Your task to perform on an android device: turn off location history Image 0: 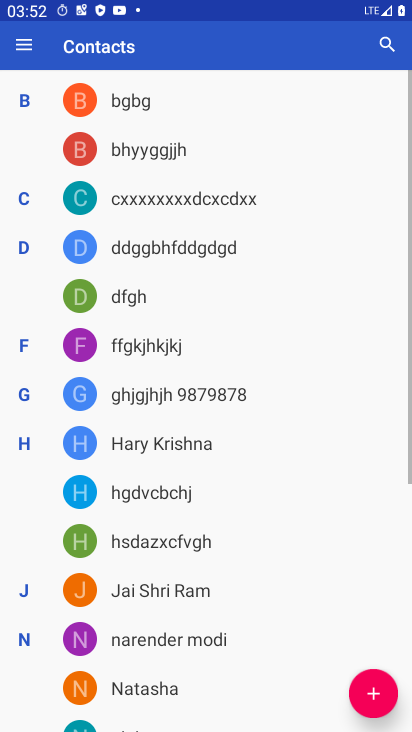
Step 0: drag from (169, 605) to (77, 180)
Your task to perform on an android device: turn off location history Image 1: 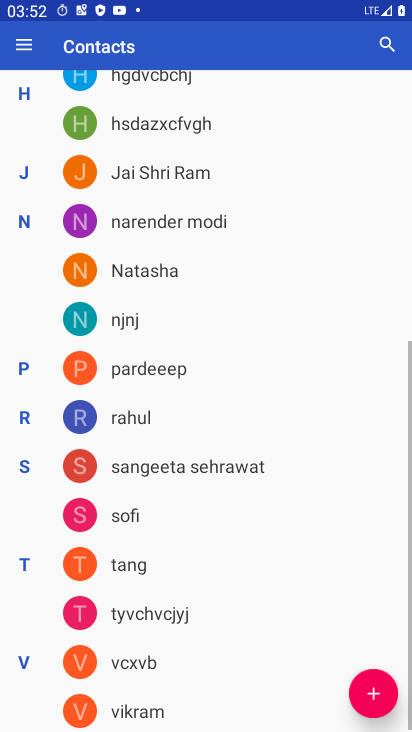
Step 1: press back button
Your task to perform on an android device: turn off location history Image 2: 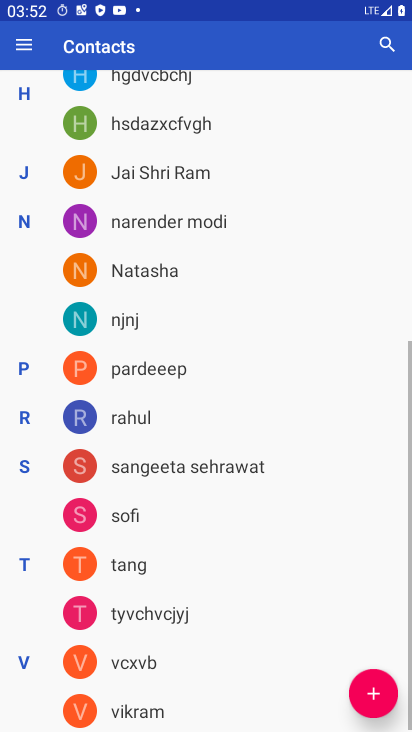
Step 2: press back button
Your task to perform on an android device: turn off location history Image 3: 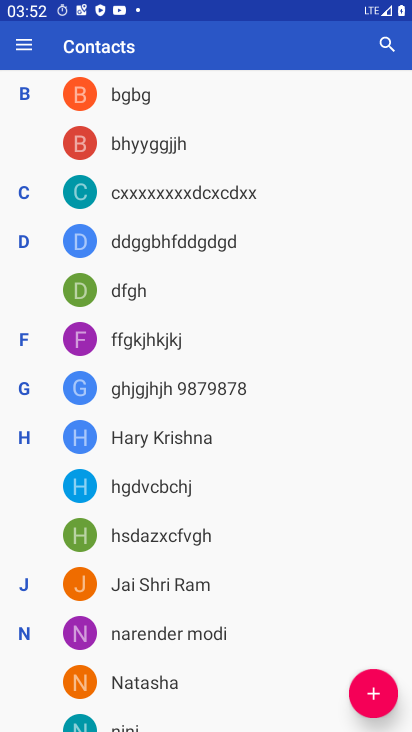
Step 3: press back button
Your task to perform on an android device: turn off location history Image 4: 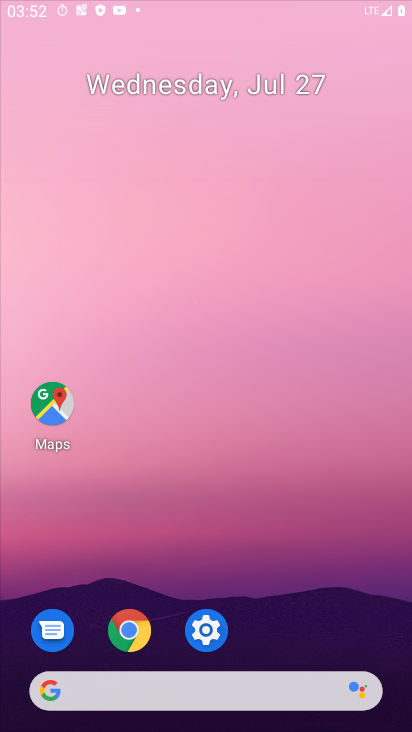
Step 4: press home button
Your task to perform on an android device: turn off location history Image 5: 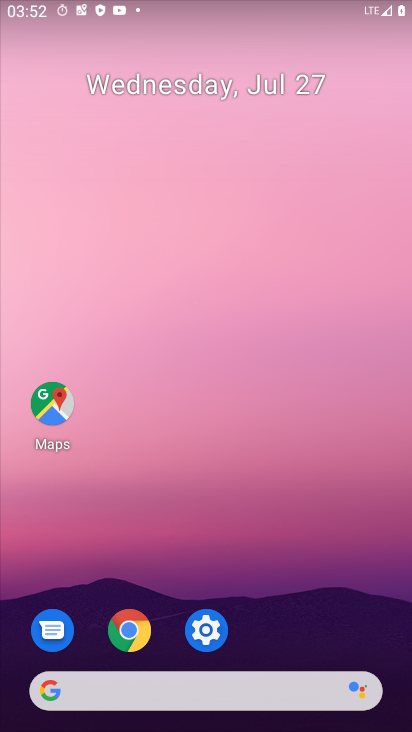
Step 5: drag from (265, 440) to (218, 147)
Your task to perform on an android device: turn off location history Image 6: 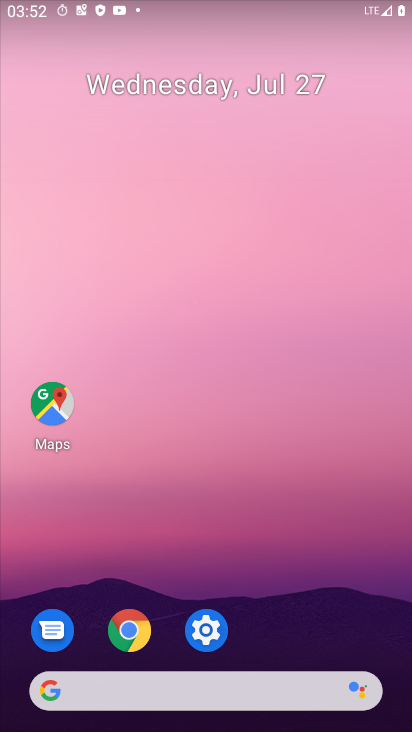
Step 6: drag from (236, 648) to (187, 125)
Your task to perform on an android device: turn off location history Image 7: 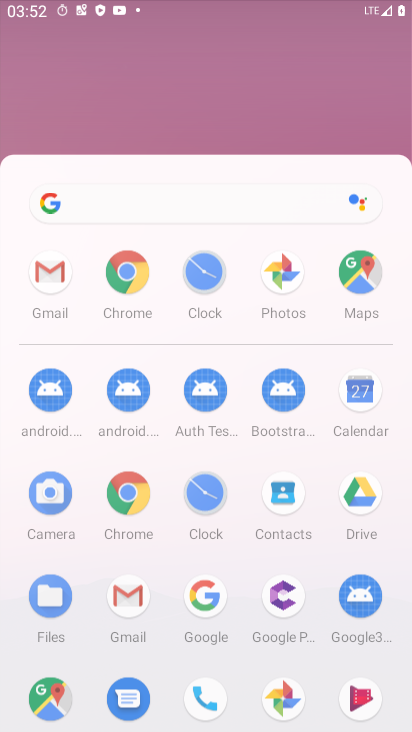
Step 7: drag from (254, 624) to (155, 152)
Your task to perform on an android device: turn off location history Image 8: 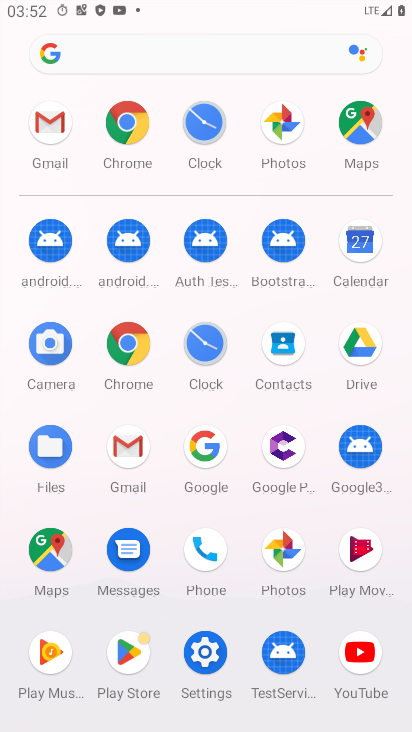
Step 8: click (204, 650)
Your task to perform on an android device: turn off location history Image 9: 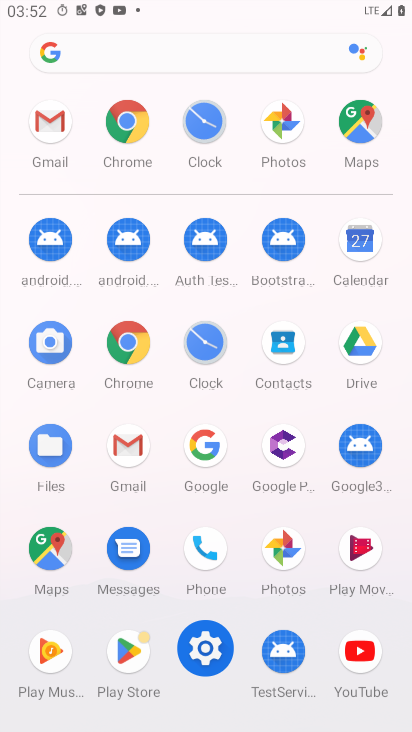
Step 9: click (200, 655)
Your task to perform on an android device: turn off location history Image 10: 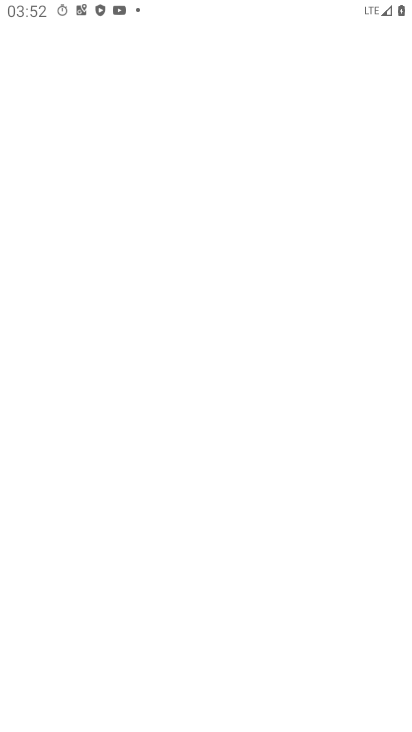
Step 10: click (219, 667)
Your task to perform on an android device: turn off location history Image 11: 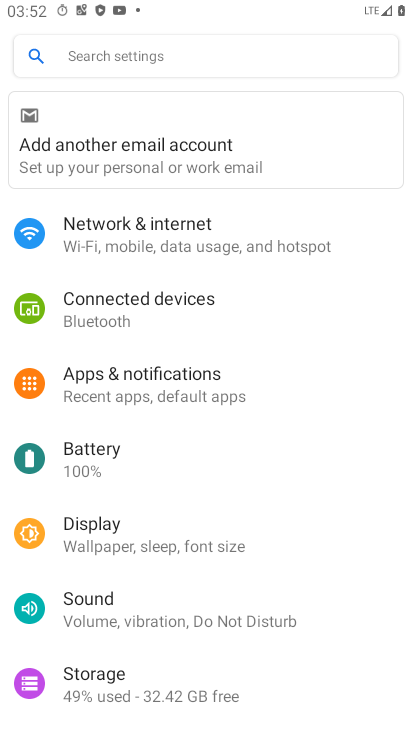
Step 11: drag from (118, 581) to (79, 175)
Your task to perform on an android device: turn off location history Image 12: 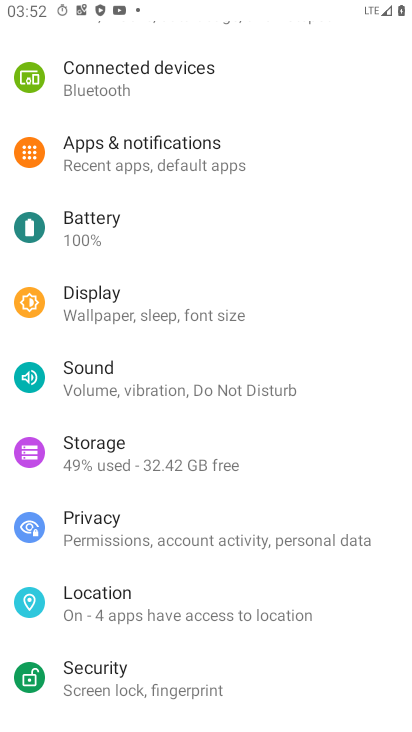
Step 12: drag from (121, 510) to (129, 148)
Your task to perform on an android device: turn off location history Image 13: 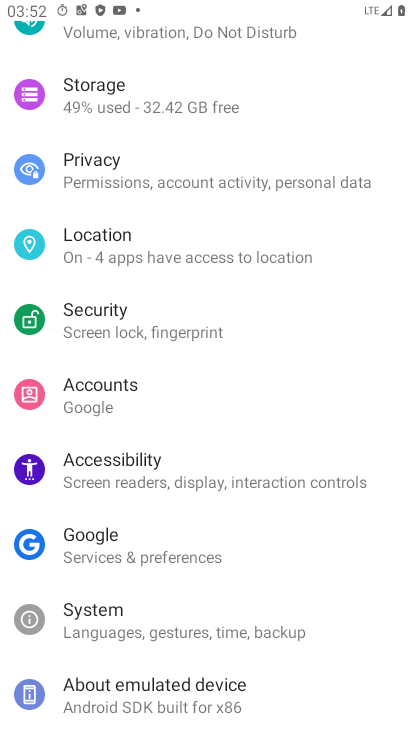
Step 13: click (95, 245)
Your task to perform on an android device: turn off location history Image 14: 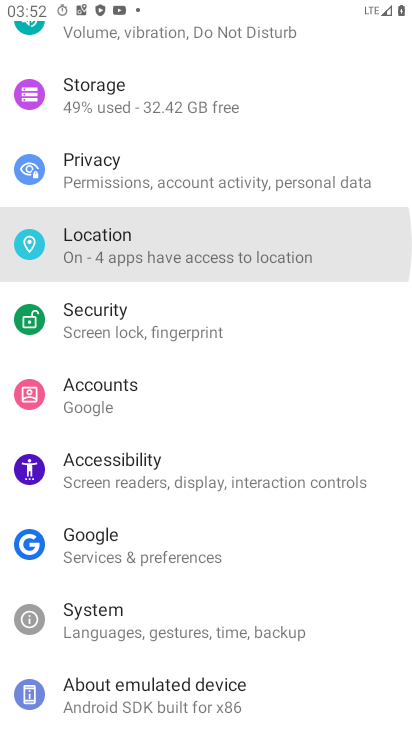
Step 14: click (95, 245)
Your task to perform on an android device: turn off location history Image 15: 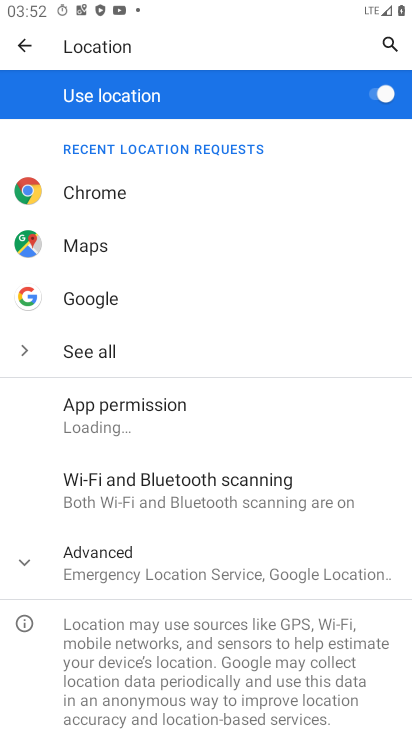
Step 15: click (120, 561)
Your task to perform on an android device: turn off location history Image 16: 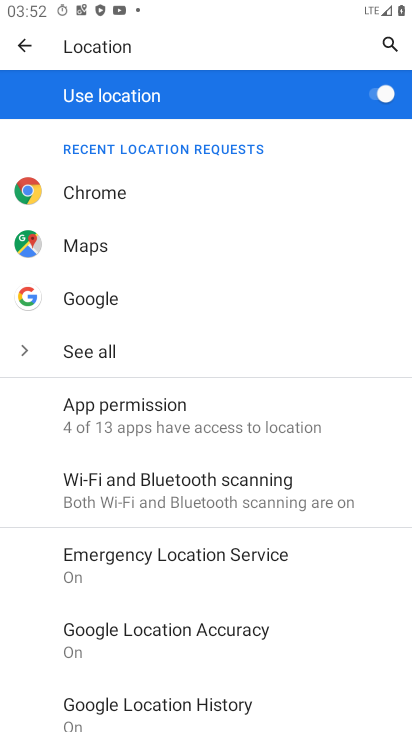
Step 16: click (178, 696)
Your task to perform on an android device: turn off location history Image 17: 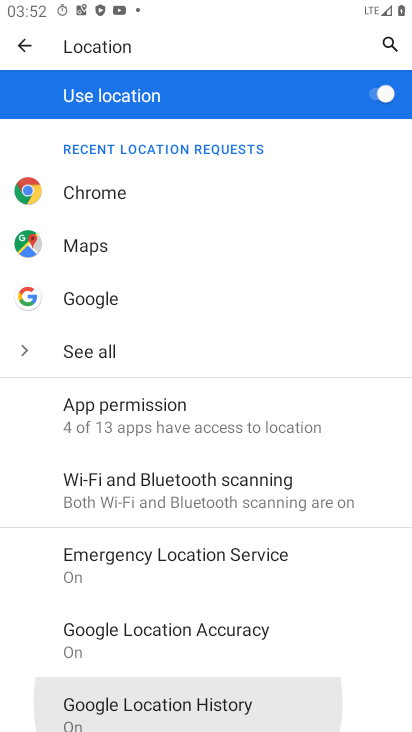
Step 17: click (178, 696)
Your task to perform on an android device: turn off location history Image 18: 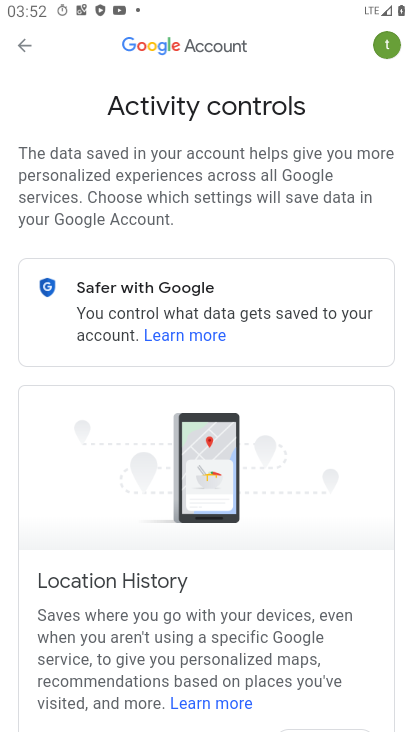
Step 18: drag from (263, 563) to (176, 204)
Your task to perform on an android device: turn off location history Image 19: 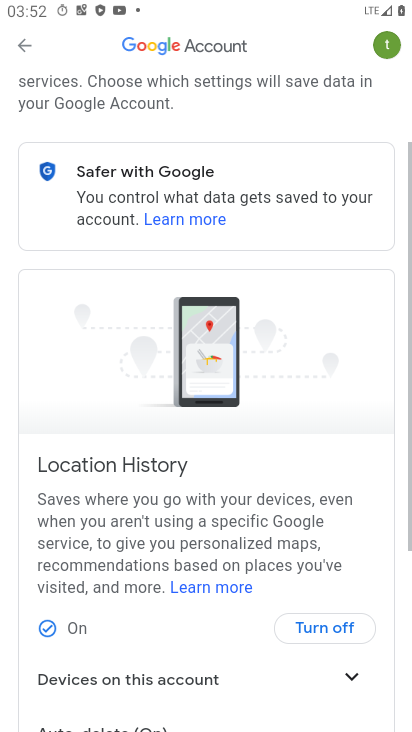
Step 19: drag from (261, 484) to (229, 213)
Your task to perform on an android device: turn off location history Image 20: 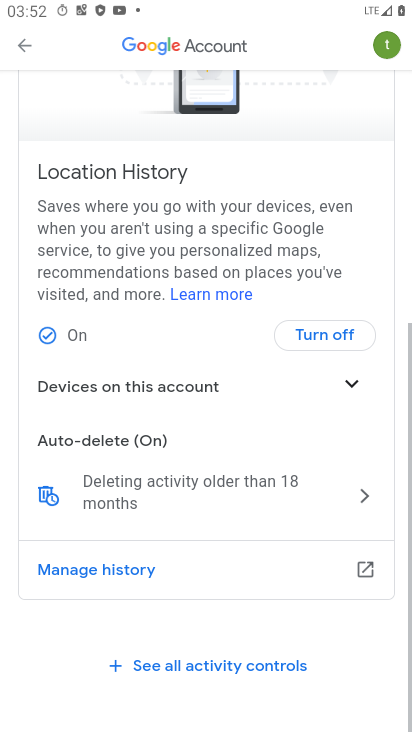
Step 20: drag from (264, 461) to (216, 130)
Your task to perform on an android device: turn off location history Image 21: 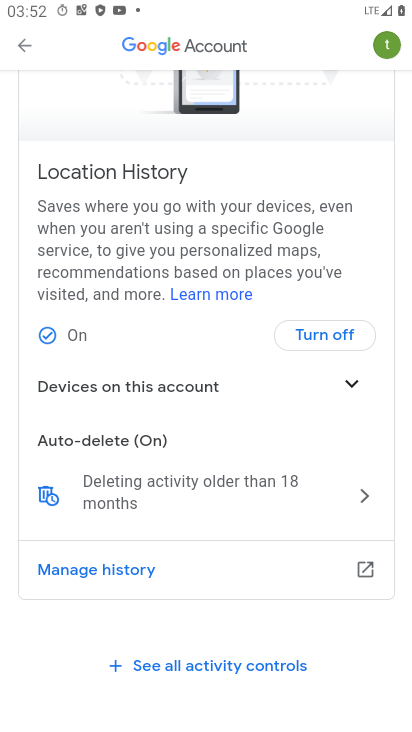
Step 21: click (315, 331)
Your task to perform on an android device: turn off location history Image 22: 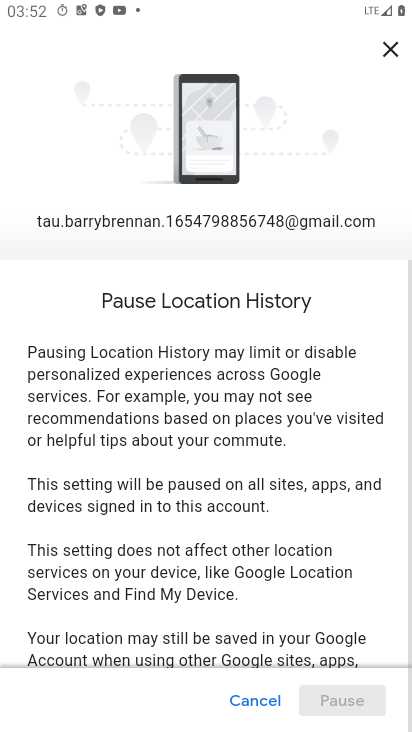
Step 22: task complete